Your task to perform on an android device: What's on my calendar tomorrow? Image 0: 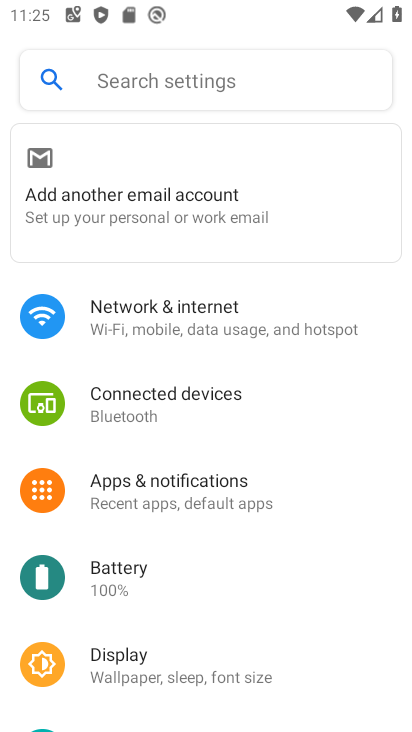
Step 0: press home button
Your task to perform on an android device: What's on my calendar tomorrow? Image 1: 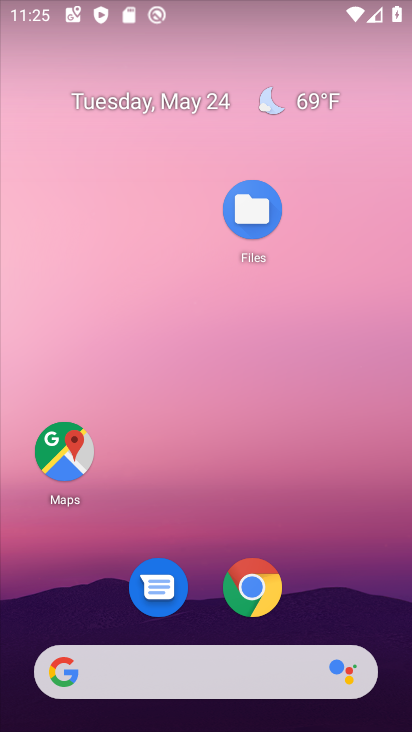
Step 1: drag from (316, 579) to (125, 134)
Your task to perform on an android device: What's on my calendar tomorrow? Image 2: 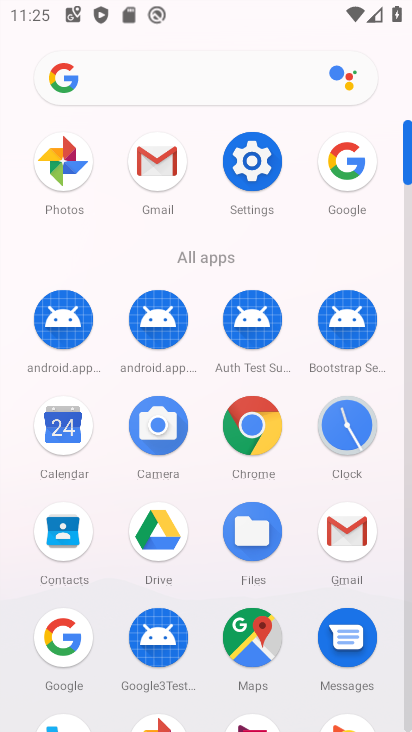
Step 2: click (74, 421)
Your task to perform on an android device: What's on my calendar tomorrow? Image 3: 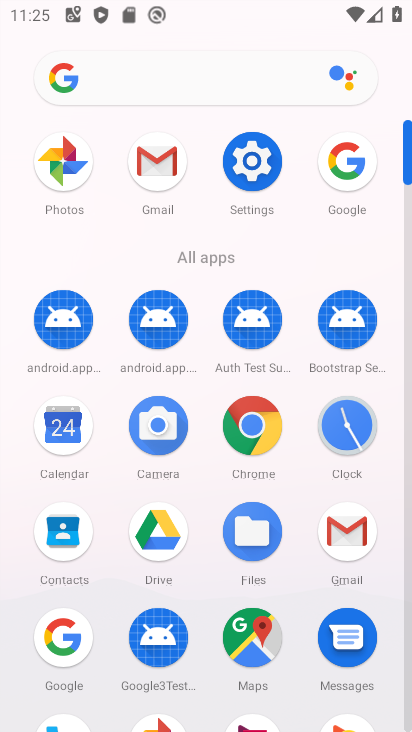
Step 3: click (74, 421)
Your task to perform on an android device: What's on my calendar tomorrow? Image 4: 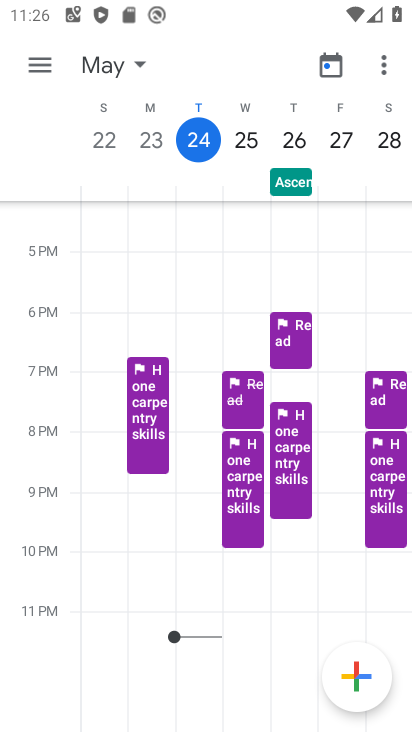
Step 4: click (118, 65)
Your task to perform on an android device: What's on my calendar tomorrow? Image 5: 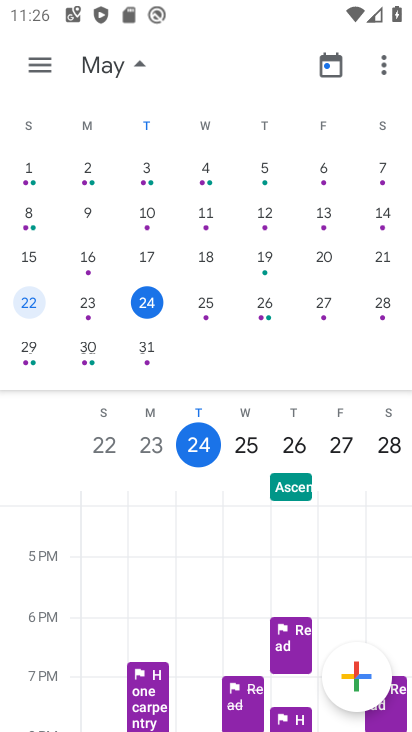
Step 5: click (202, 304)
Your task to perform on an android device: What's on my calendar tomorrow? Image 6: 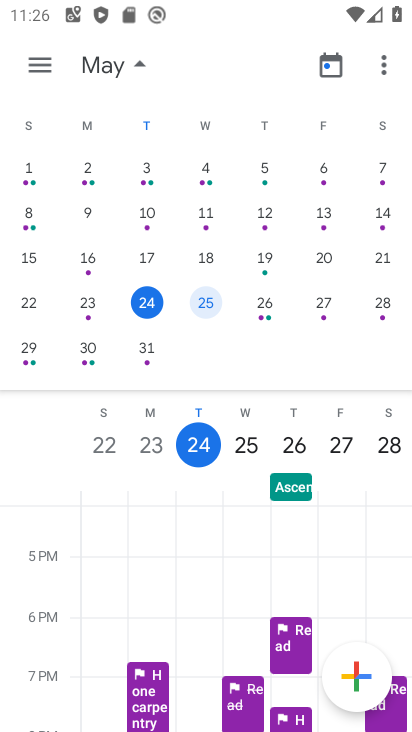
Step 6: click (139, 70)
Your task to perform on an android device: What's on my calendar tomorrow? Image 7: 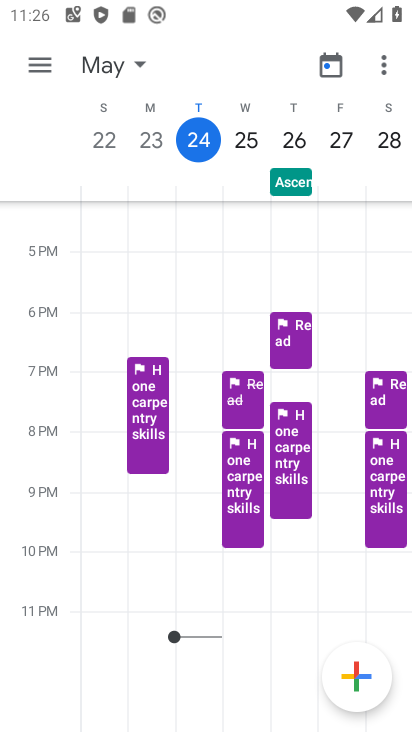
Step 7: click (40, 75)
Your task to perform on an android device: What's on my calendar tomorrow? Image 8: 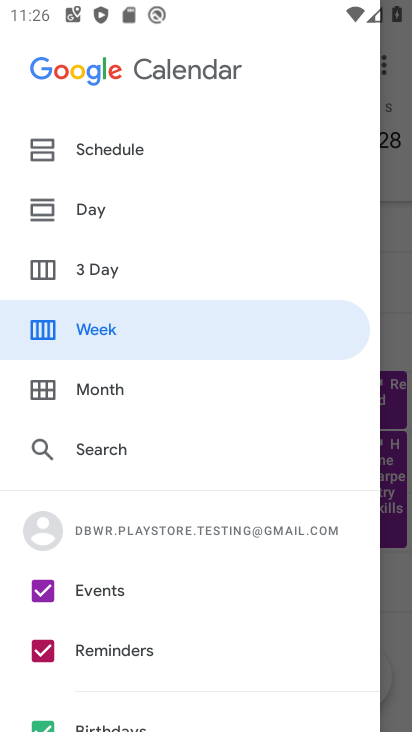
Step 8: click (67, 149)
Your task to perform on an android device: What's on my calendar tomorrow? Image 9: 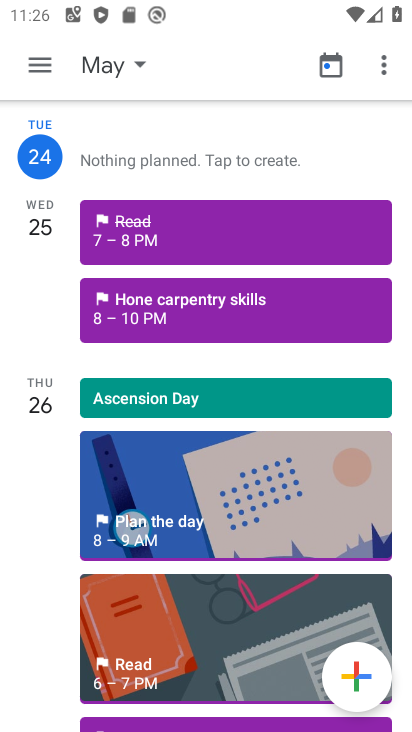
Step 9: task complete